Your task to perform on an android device: Open Google Chrome and open the bookmarks view Image 0: 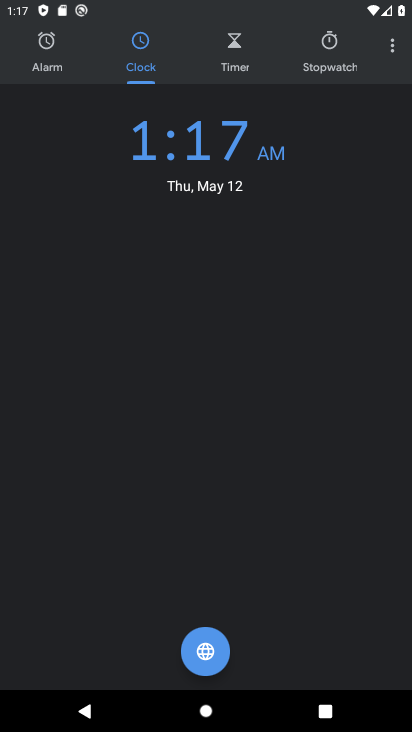
Step 0: press back button
Your task to perform on an android device: Open Google Chrome and open the bookmarks view Image 1: 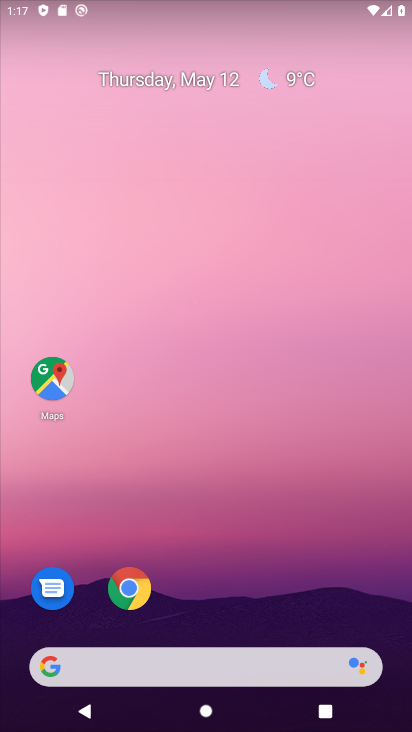
Step 1: click (140, 592)
Your task to perform on an android device: Open Google Chrome and open the bookmarks view Image 2: 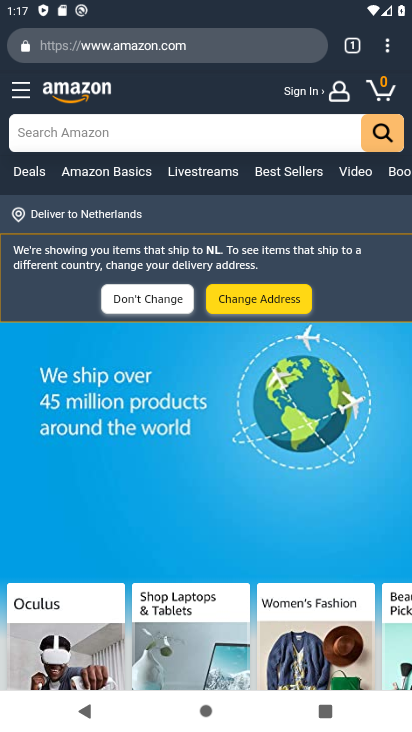
Step 2: task complete